Your task to perform on an android device: Go to Maps Image 0: 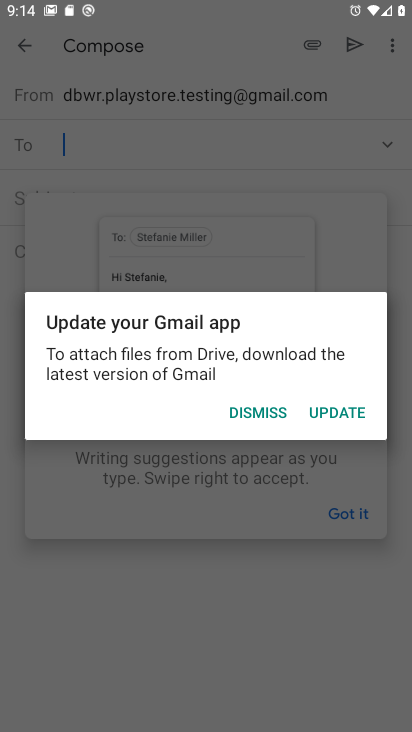
Step 0: press back button
Your task to perform on an android device: Go to Maps Image 1: 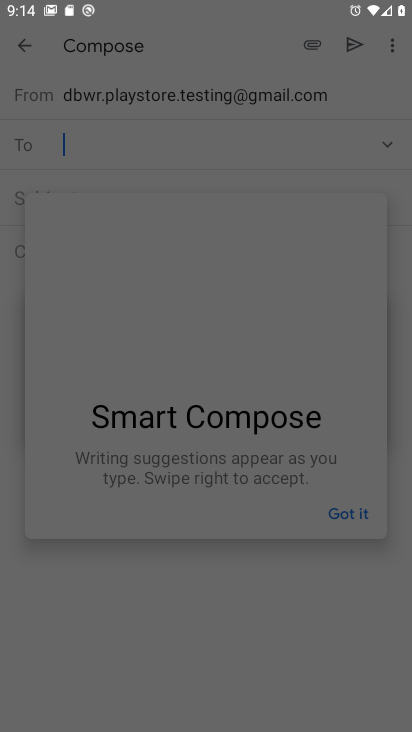
Step 1: press back button
Your task to perform on an android device: Go to Maps Image 2: 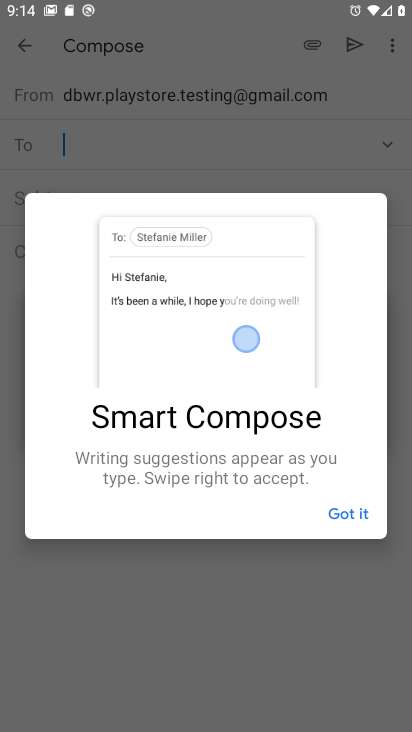
Step 2: press home button
Your task to perform on an android device: Go to Maps Image 3: 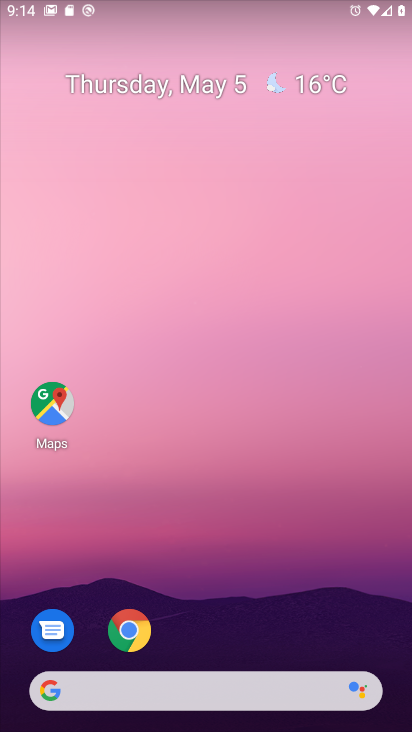
Step 3: drag from (318, 546) to (304, 93)
Your task to perform on an android device: Go to Maps Image 4: 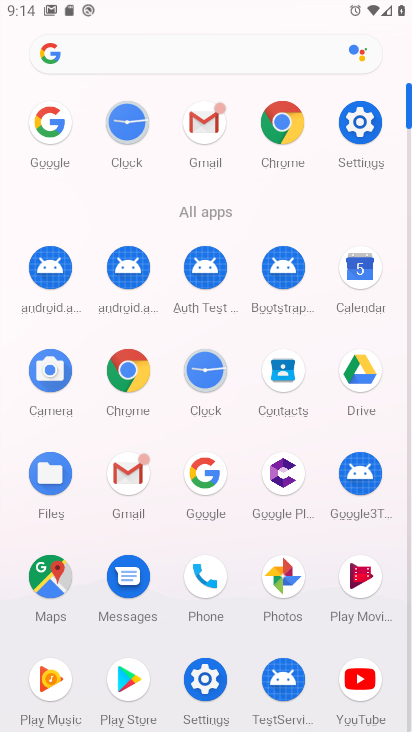
Step 4: click (40, 580)
Your task to perform on an android device: Go to Maps Image 5: 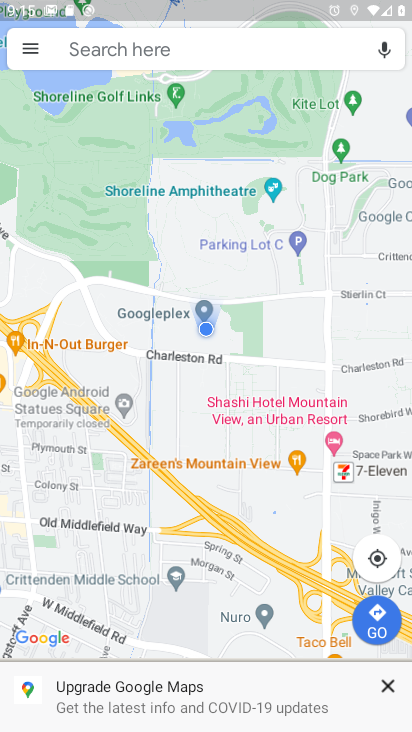
Step 5: task complete